Your task to perform on an android device: Search for hotels in New York Image 0: 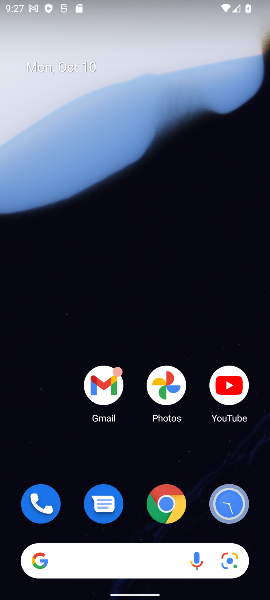
Step 0: click (168, 504)
Your task to perform on an android device: Search for hotels in New York Image 1: 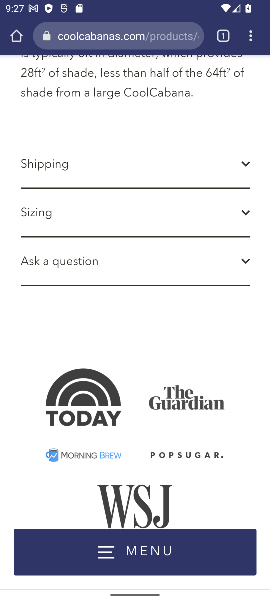
Step 1: click (109, 23)
Your task to perform on an android device: Search for hotels in New York Image 2: 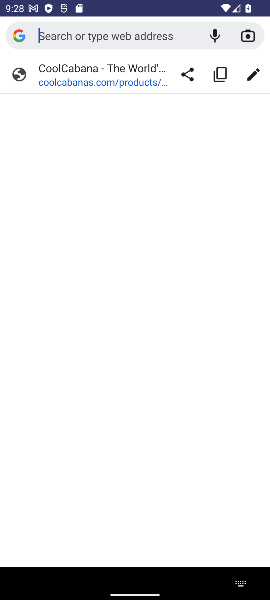
Step 2: type " hotels in New York"
Your task to perform on an android device: Search for hotels in New York Image 3: 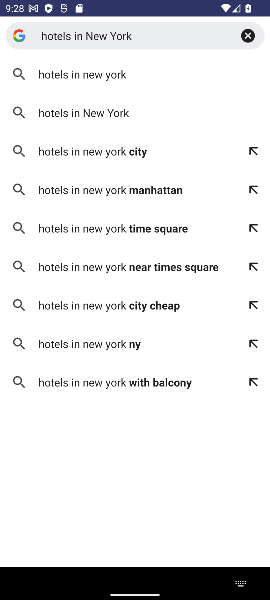
Step 3: click (54, 72)
Your task to perform on an android device: Search for hotels in New York Image 4: 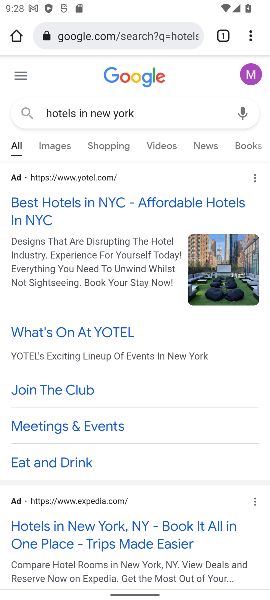
Step 4: drag from (154, 493) to (157, 371)
Your task to perform on an android device: Search for hotels in New York Image 5: 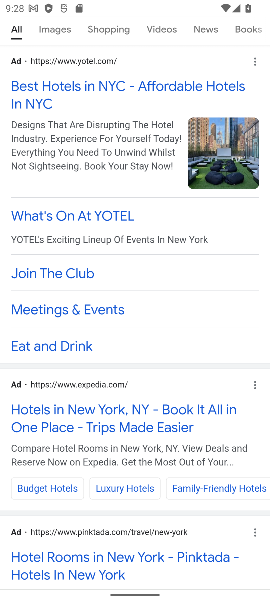
Step 5: click (43, 416)
Your task to perform on an android device: Search for hotels in New York Image 6: 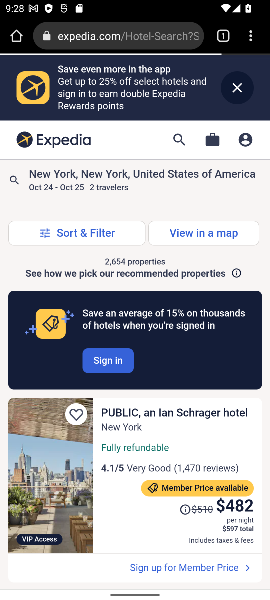
Step 6: task complete